Your task to perform on an android device: create a new album in the google photos Image 0: 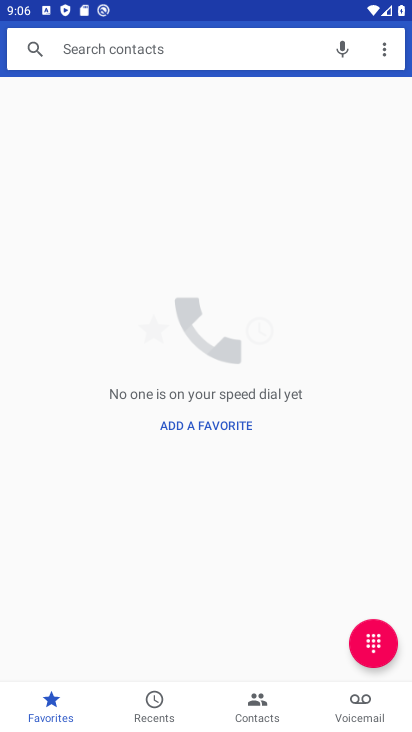
Step 0: task complete